Your task to perform on an android device: toggle improve location accuracy Image 0: 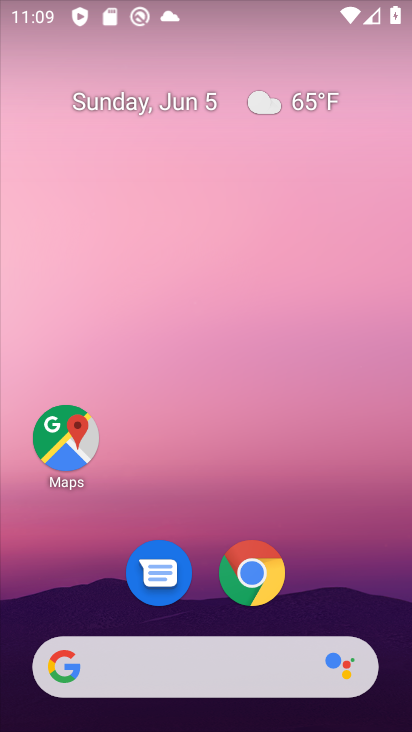
Step 0: press home button
Your task to perform on an android device: toggle improve location accuracy Image 1: 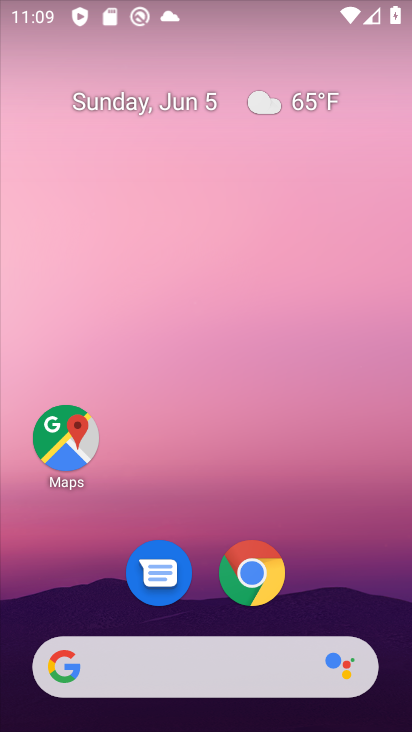
Step 1: drag from (217, 498) to (245, 69)
Your task to perform on an android device: toggle improve location accuracy Image 2: 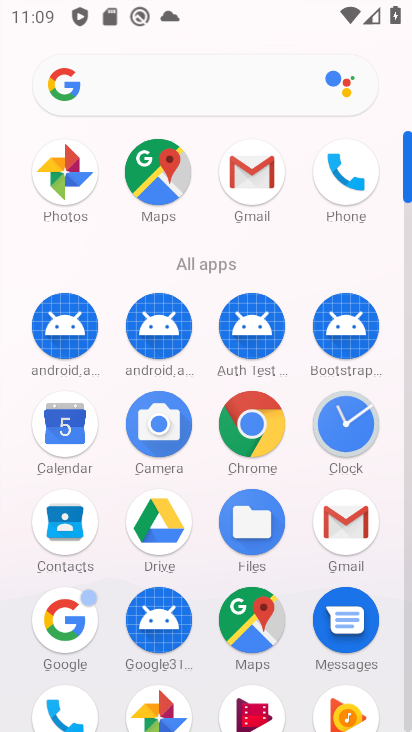
Step 2: drag from (207, 574) to (213, 180)
Your task to perform on an android device: toggle improve location accuracy Image 3: 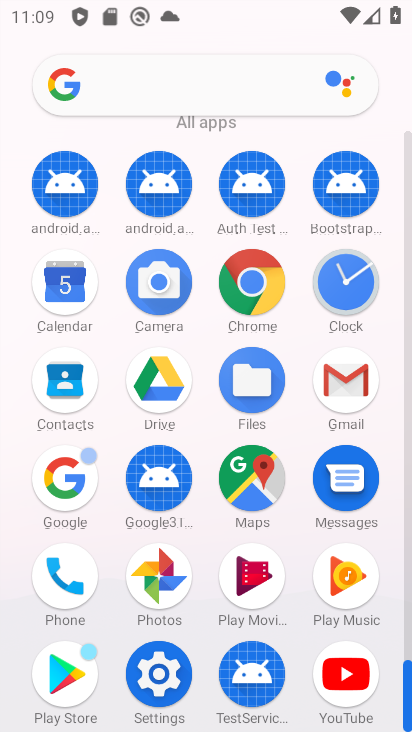
Step 3: click (155, 665)
Your task to perform on an android device: toggle improve location accuracy Image 4: 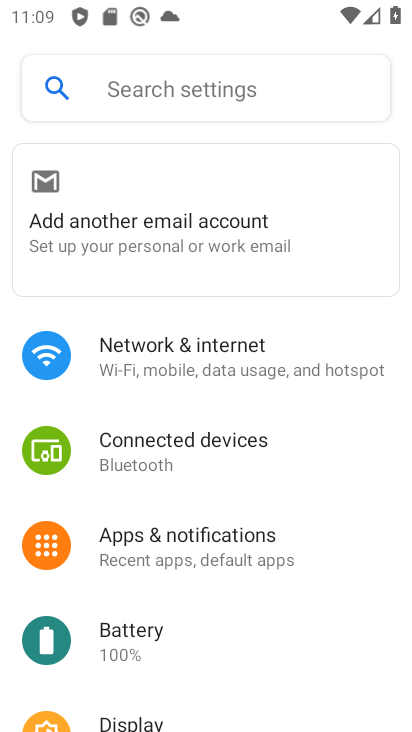
Step 4: drag from (196, 685) to (204, 158)
Your task to perform on an android device: toggle improve location accuracy Image 5: 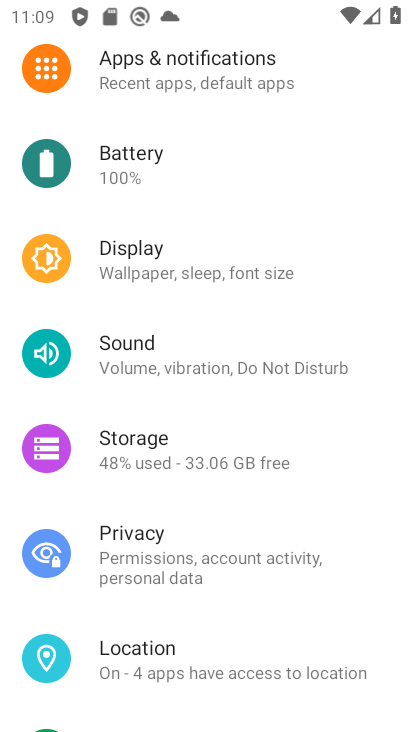
Step 5: click (191, 647)
Your task to perform on an android device: toggle improve location accuracy Image 6: 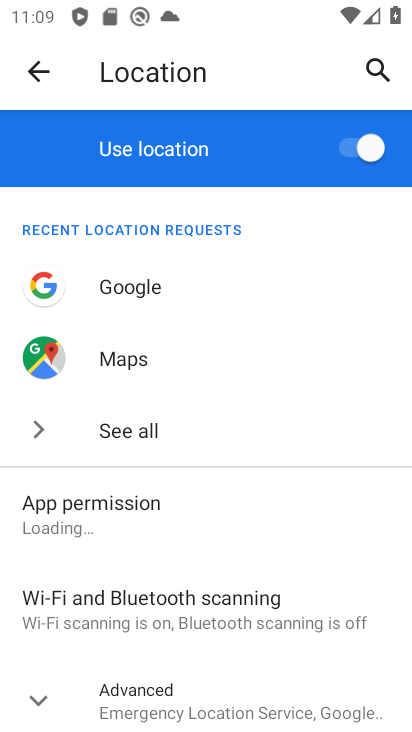
Step 6: click (43, 691)
Your task to perform on an android device: toggle improve location accuracy Image 7: 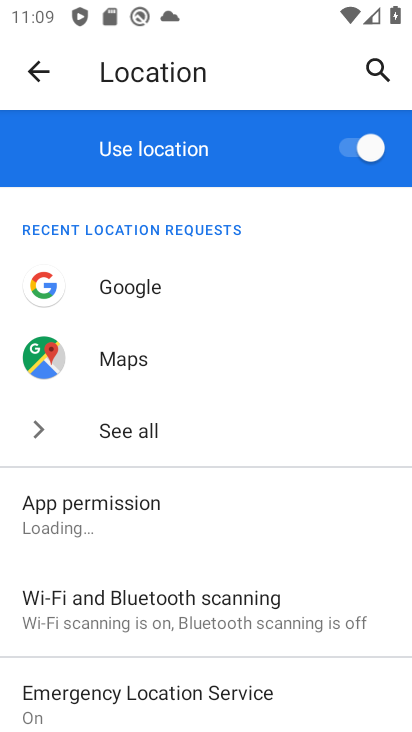
Step 7: drag from (297, 685) to (304, 232)
Your task to perform on an android device: toggle improve location accuracy Image 8: 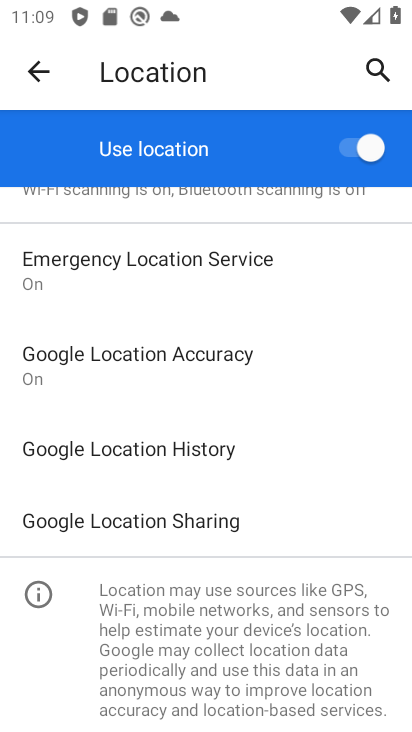
Step 8: click (79, 370)
Your task to perform on an android device: toggle improve location accuracy Image 9: 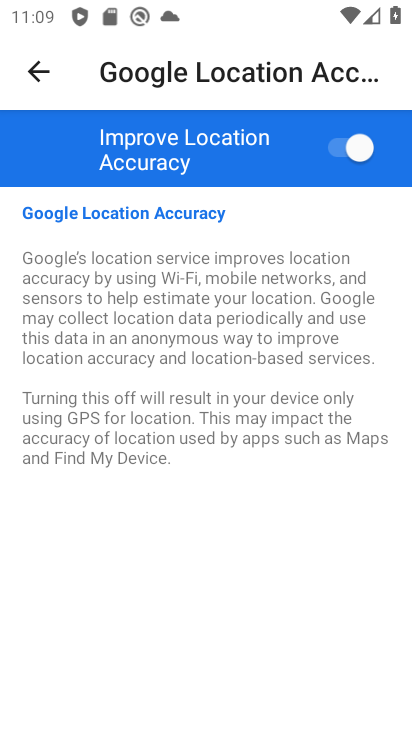
Step 9: click (340, 143)
Your task to perform on an android device: toggle improve location accuracy Image 10: 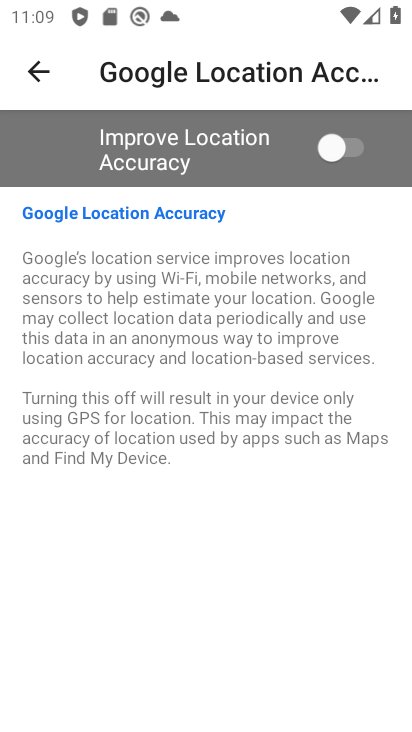
Step 10: task complete